Your task to perform on an android device: toggle data saver in the chrome app Image 0: 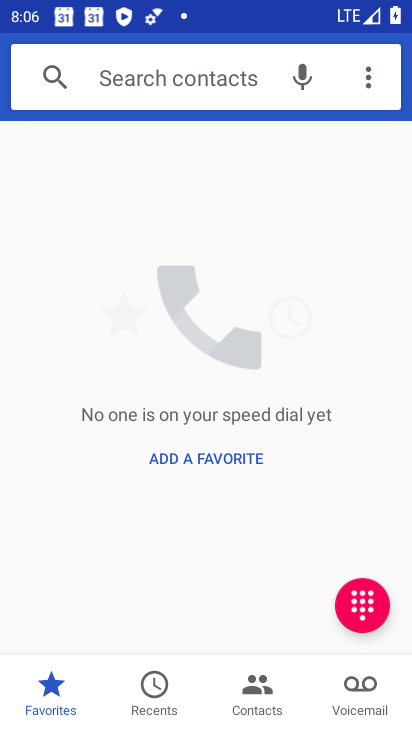
Step 0: press home button
Your task to perform on an android device: toggle data saver in the chrome app Image 1: 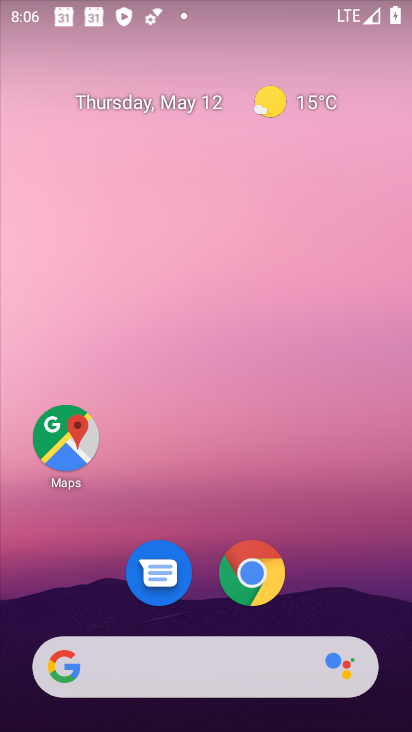
Step 1: click (252, 563)
Your task to perform on an android device: toggle data saver in the chrome app Image 2: 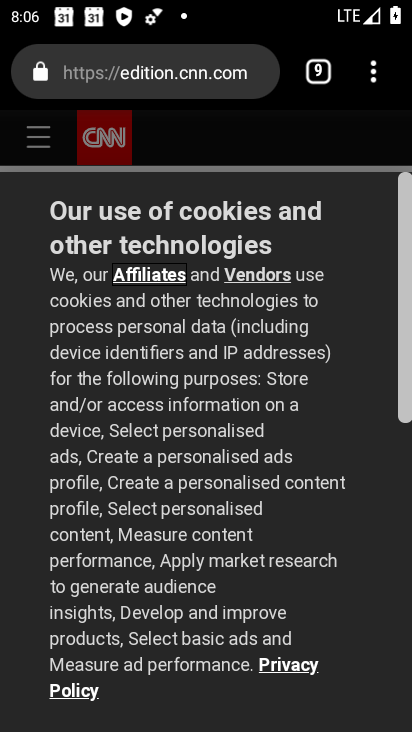
Step 2: click (377, 73)
Your task to perform on an android device: toggle data saver in the chrome app Image 3: 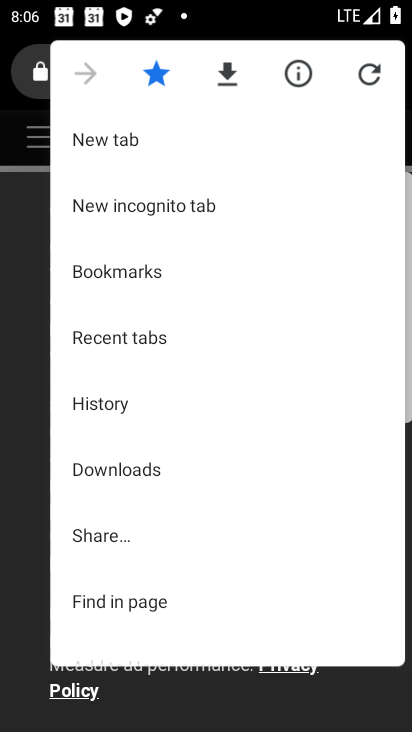
Step 3: drag from (205, 490) to (197, 229)
Your task to perform on an android device: toggle data saver in the chrome app Image 4: 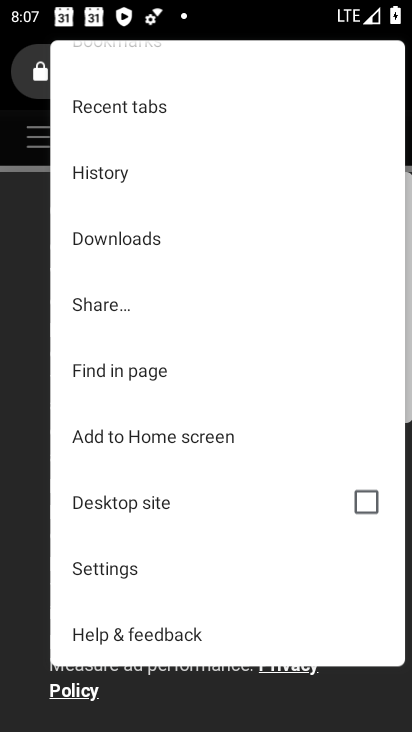
Step 4: click (121, 565)
Your task to perform on an android device: toggle data saver in the chrome app Image 5: 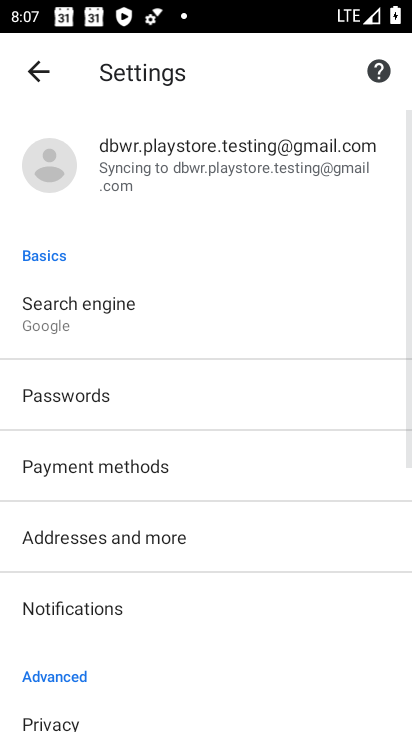
Step 5: drag from (280, 530) to (241, 245)
Your task to perform on an android device: toggle data saver in the chrome app Image 6: 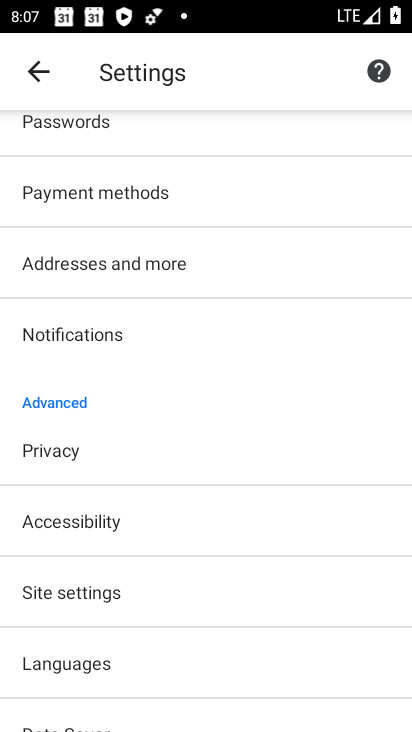
Step 6: drag from (235, 598) to (167, 299)
Your task to perform on an android device: toggle data saver in the chrome app Image 7: 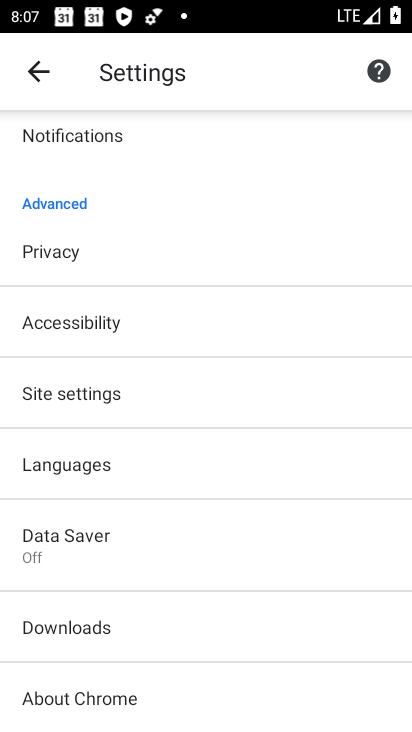
Step 7: click (55, 536)
Your task to perform on an android device: toggle data saver in the chrome app Image 8: 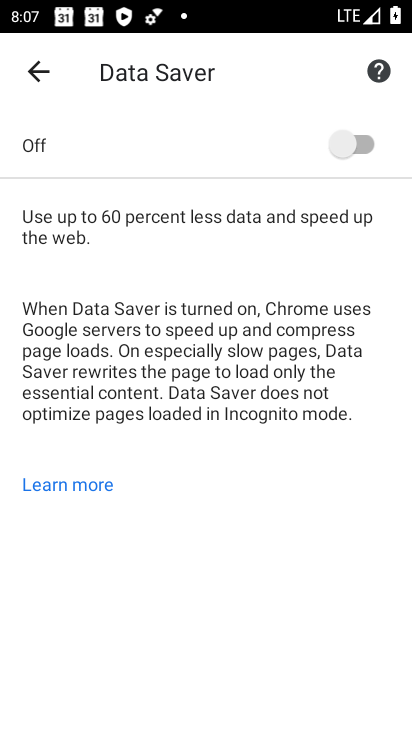
Step 8: click (349, 140)
Your task to perform on an android device: toggle data saver in the chrome app Image 9: 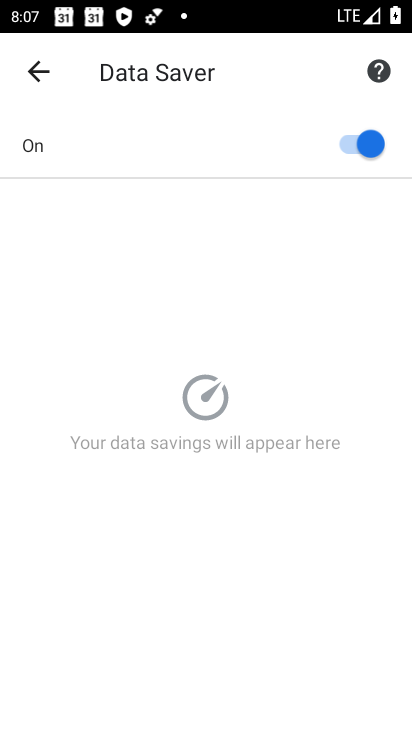
Step 9: task complete